Your task to perform on an android device: Add usb-b to the cart on amazon, then select checkout. Image 0: 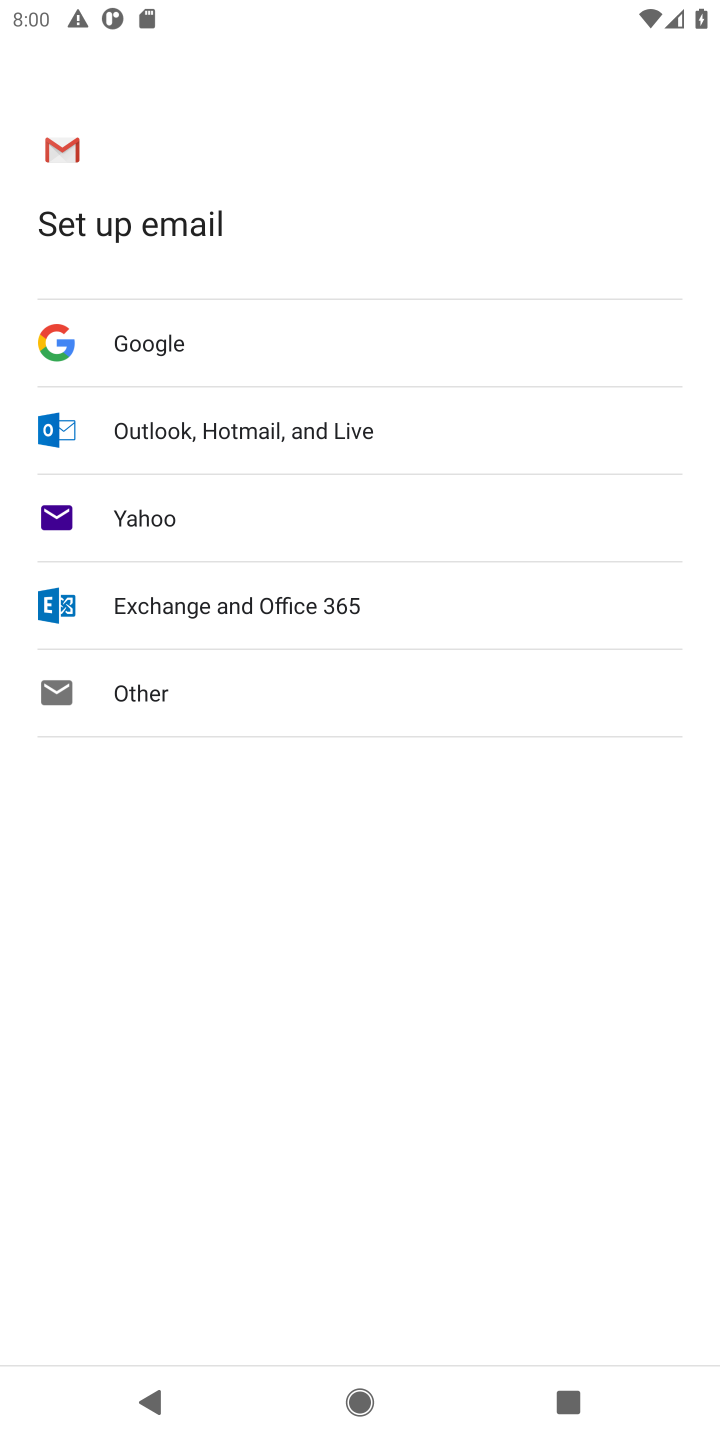
Step 0: press home button
Your task to perform on an android device: Add usb-b to the cart on amazon, then select checkout. Image 1: 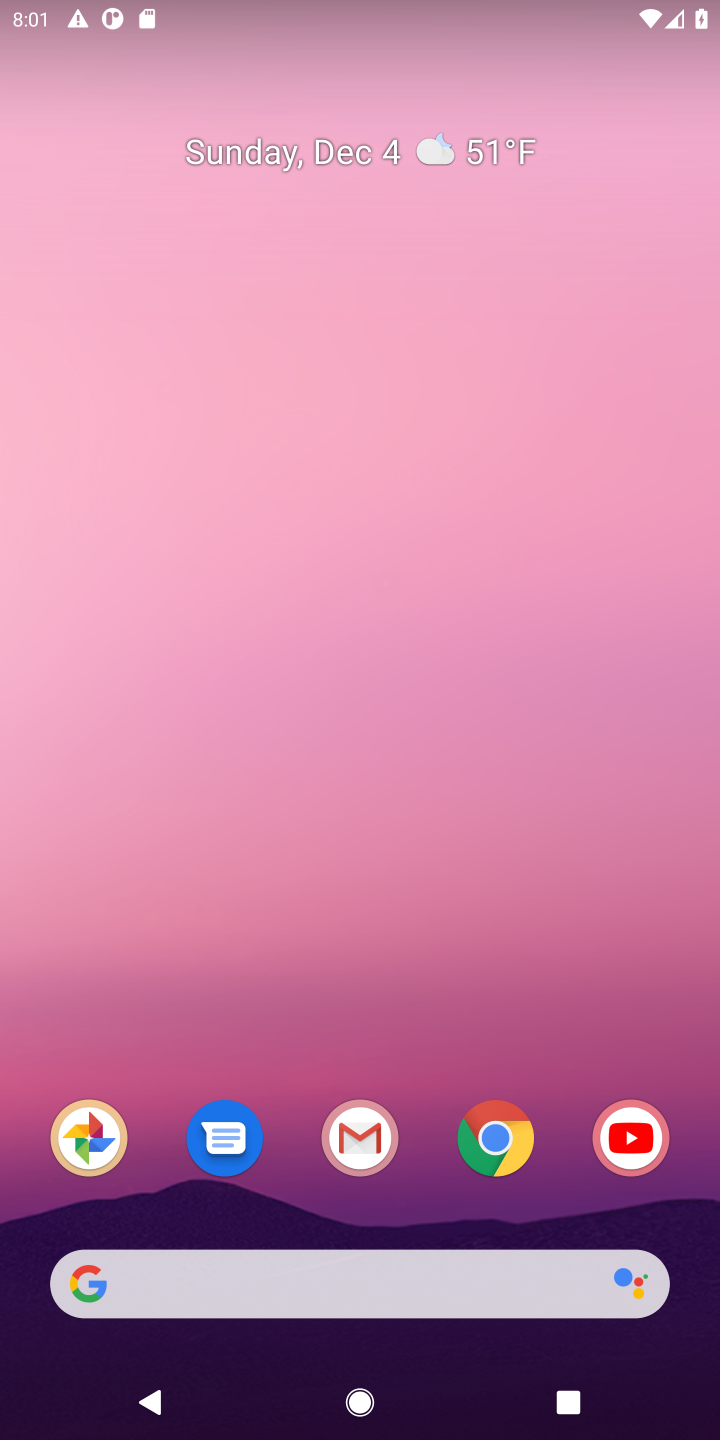
Step 1: click (511, 1125)
Your task to perform on an android device: Add usb-b to the cart on amazon, then select checkout. Image 2: 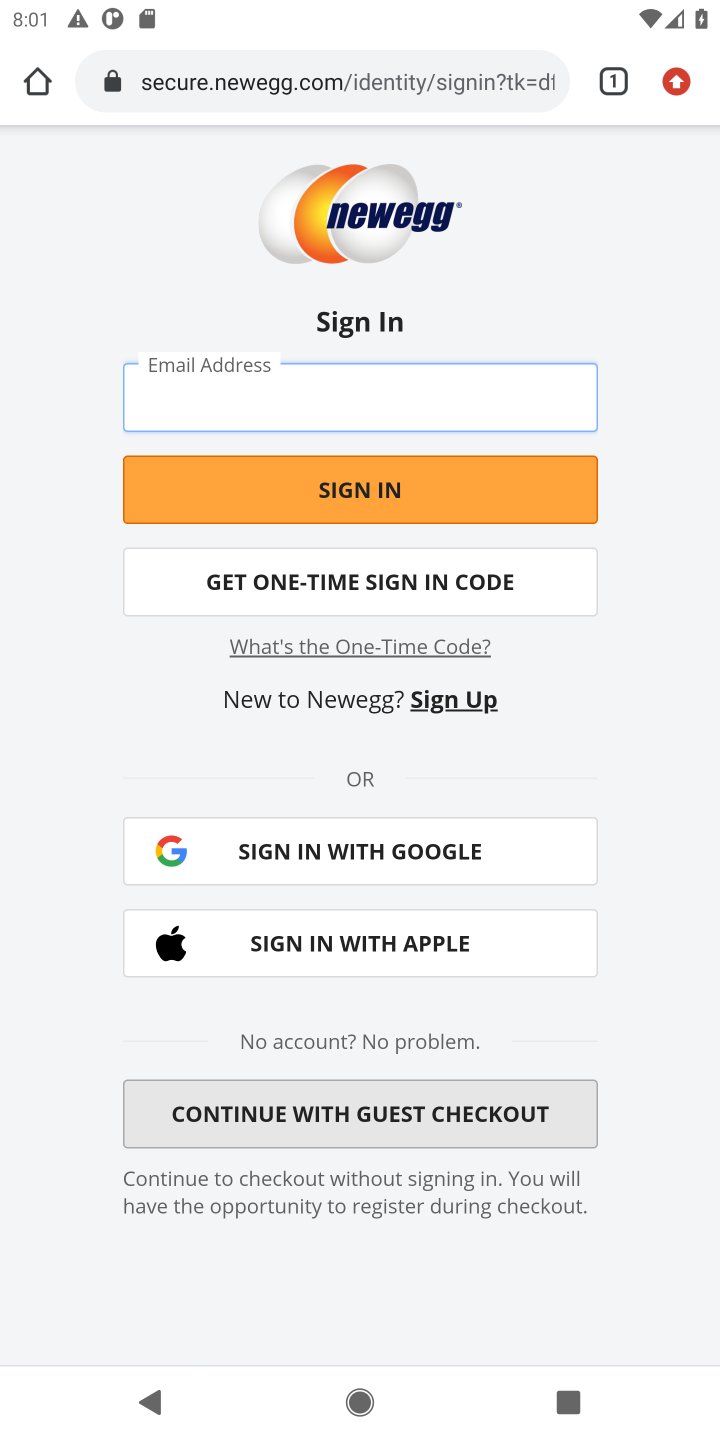
Step 2: click (402, 86)
Your task to perform on an android device: Add usb-b to the cart on amazon, then select checkout. Image 3: 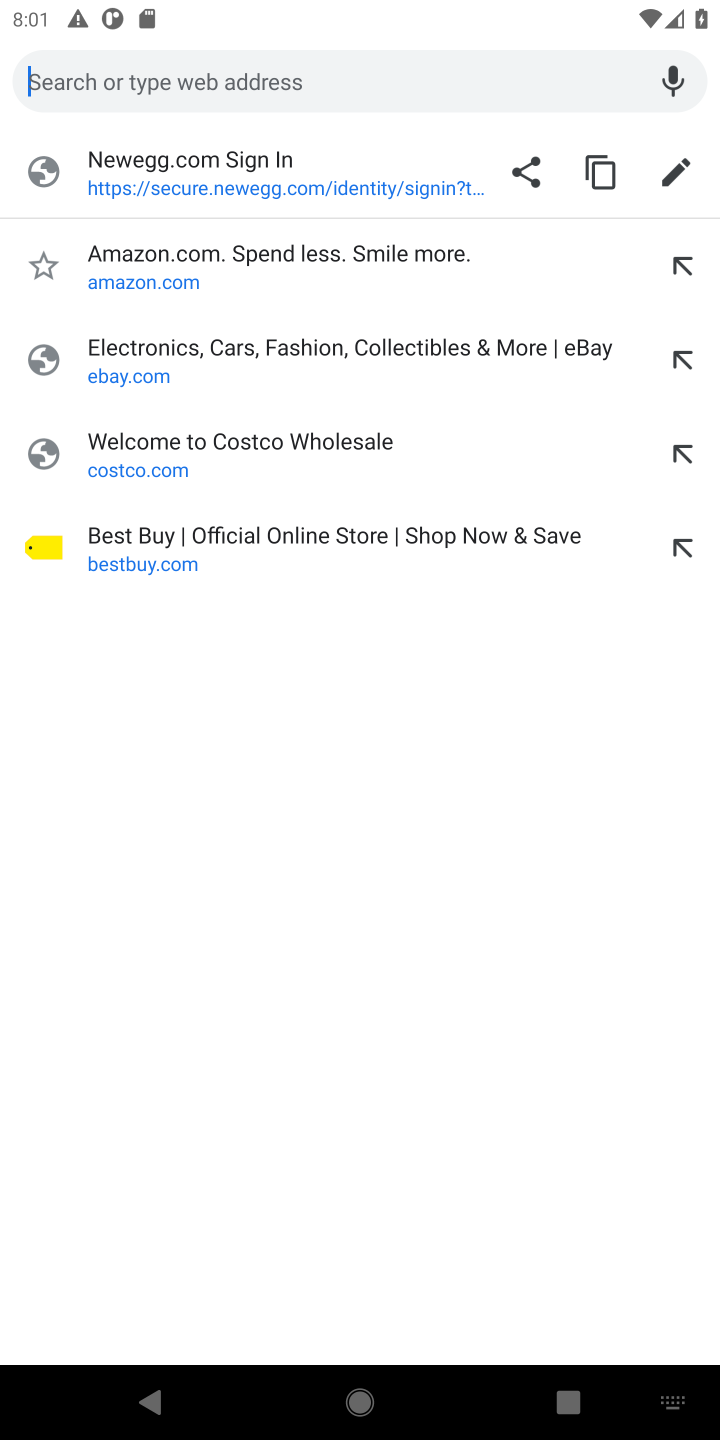
Step 3: click (261, 240)
Your task to perform on an android device: Add usb-b to the cart on amazon, then select checkout. Image 4: 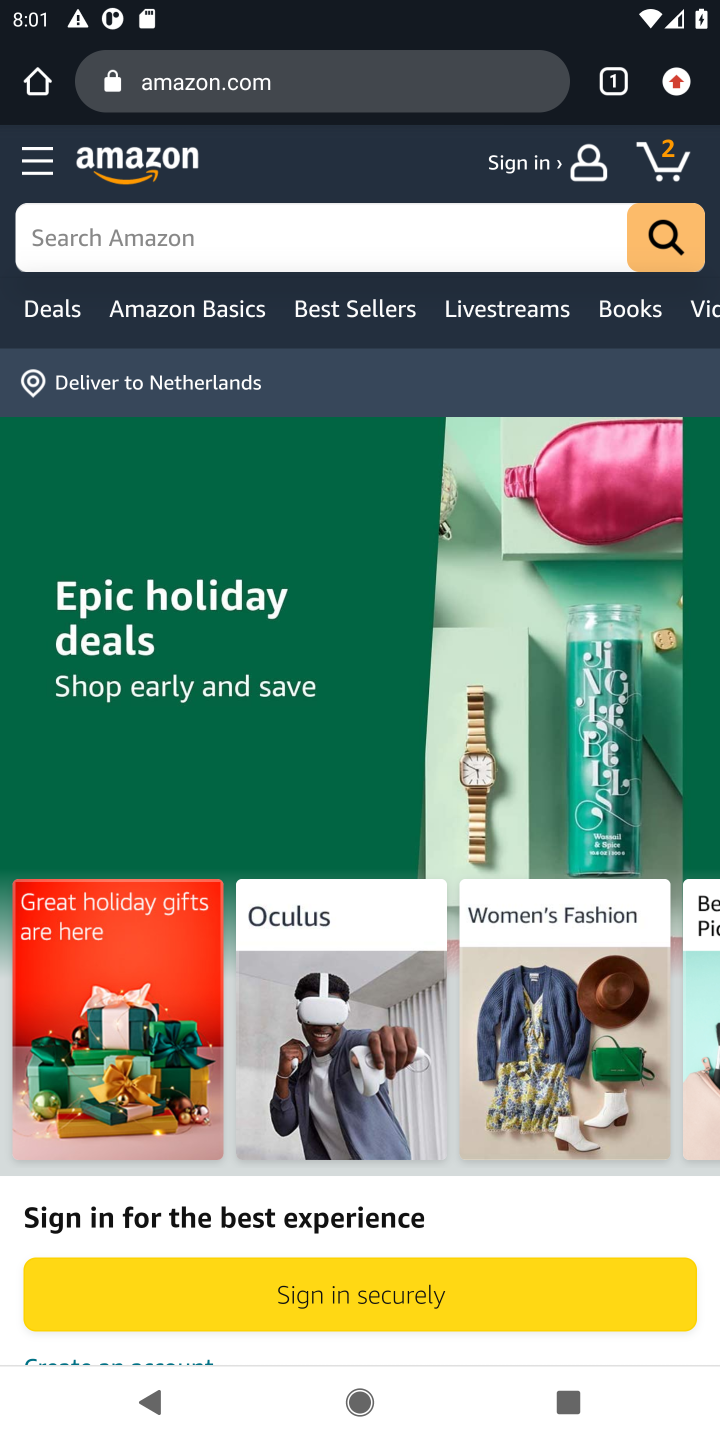
Step 4: click (558, 226)
Your task to perform on an android device: Add usb-b to the cart on amazon, then select checkout. Image 5: 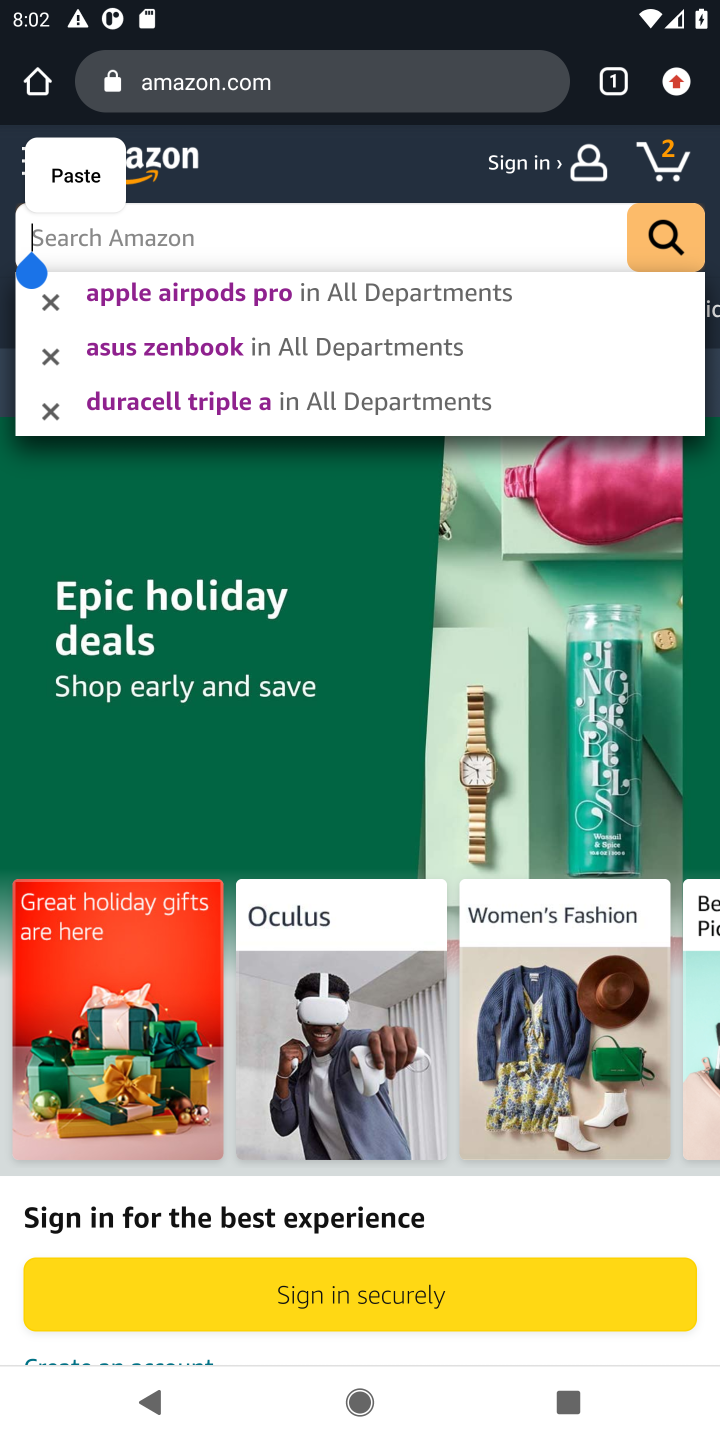
Step 5: press enter
Your task to perform on an android device: Add usb-b to the cart on amazon, then select checkout. Image 6: 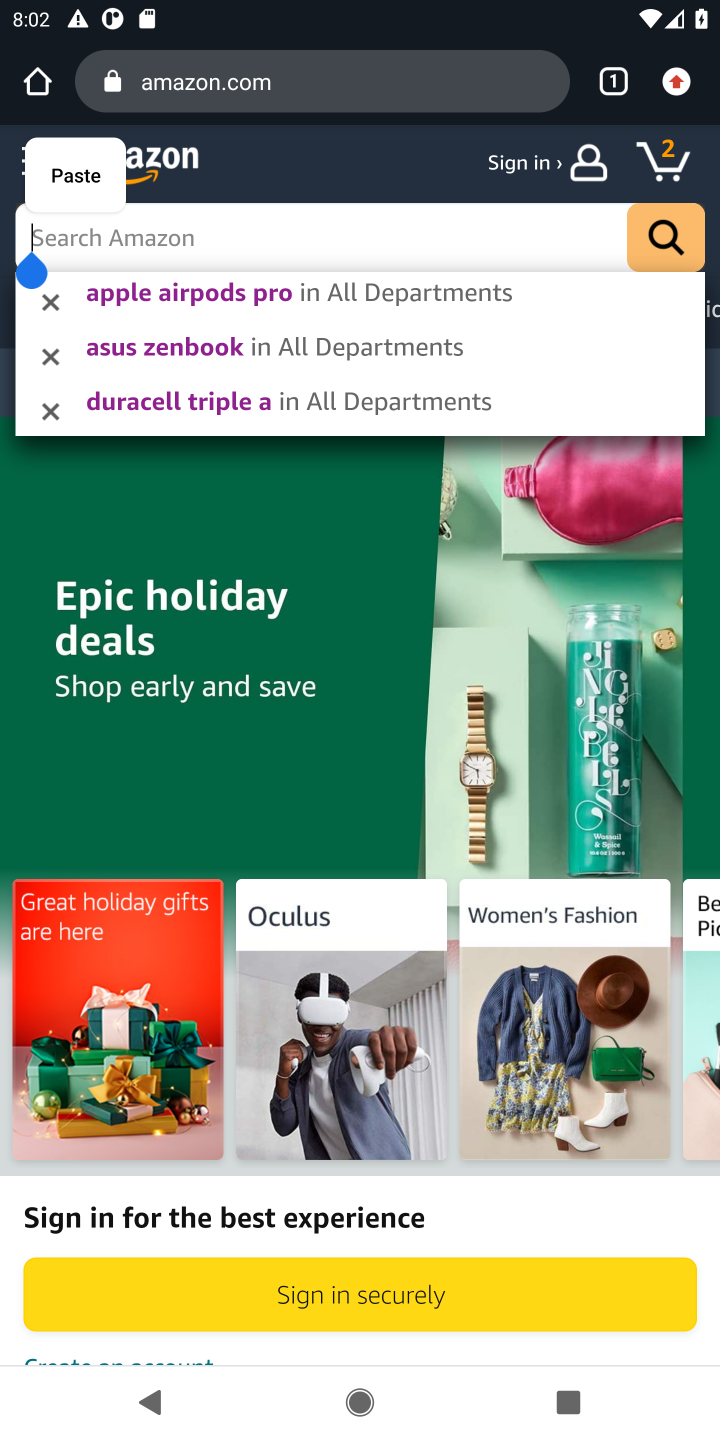
Step 6: type "usb-b"
Your task to perform on an android device: Add usb-b to the cart on amazon, then select checkout. Image 7: 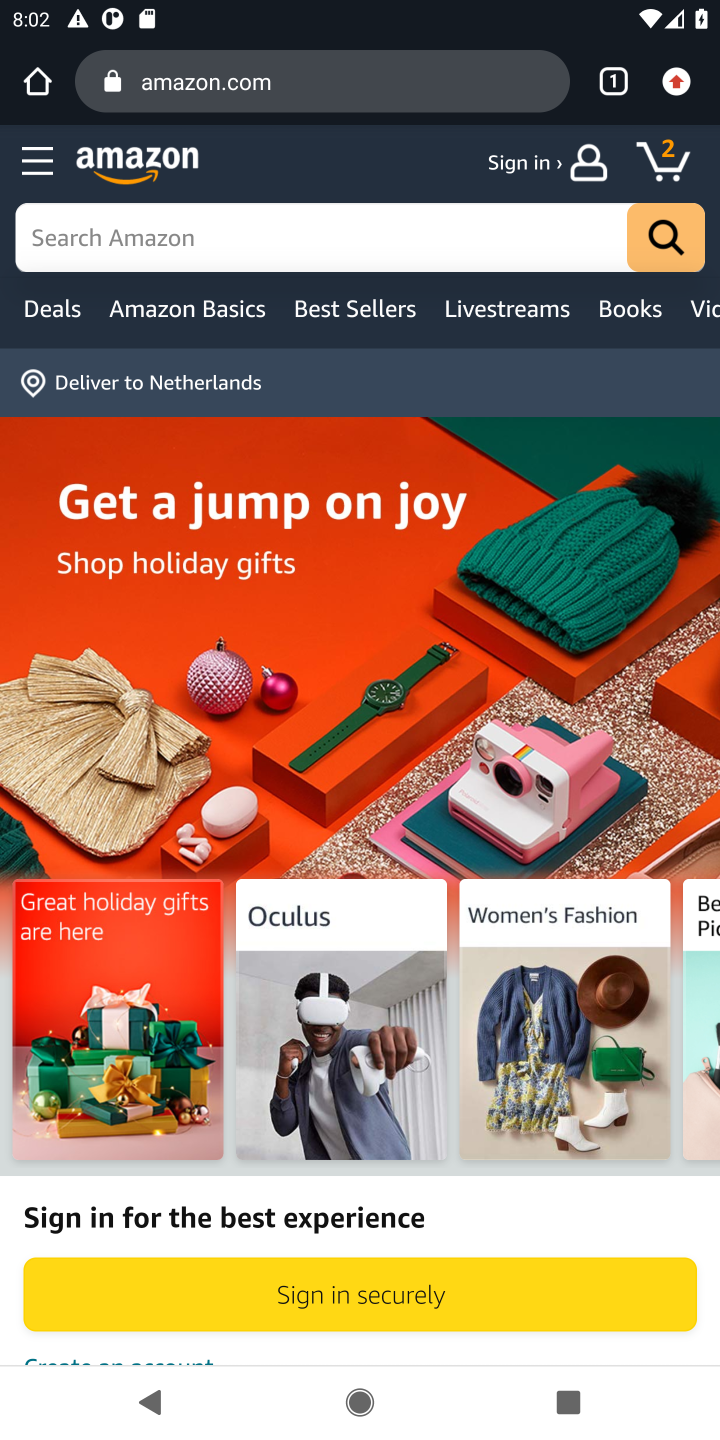
Step 7: click (463, 232)
Your task to perform on an android device: Add usb-b to the cart on amazon, then select checkout. Image 8: 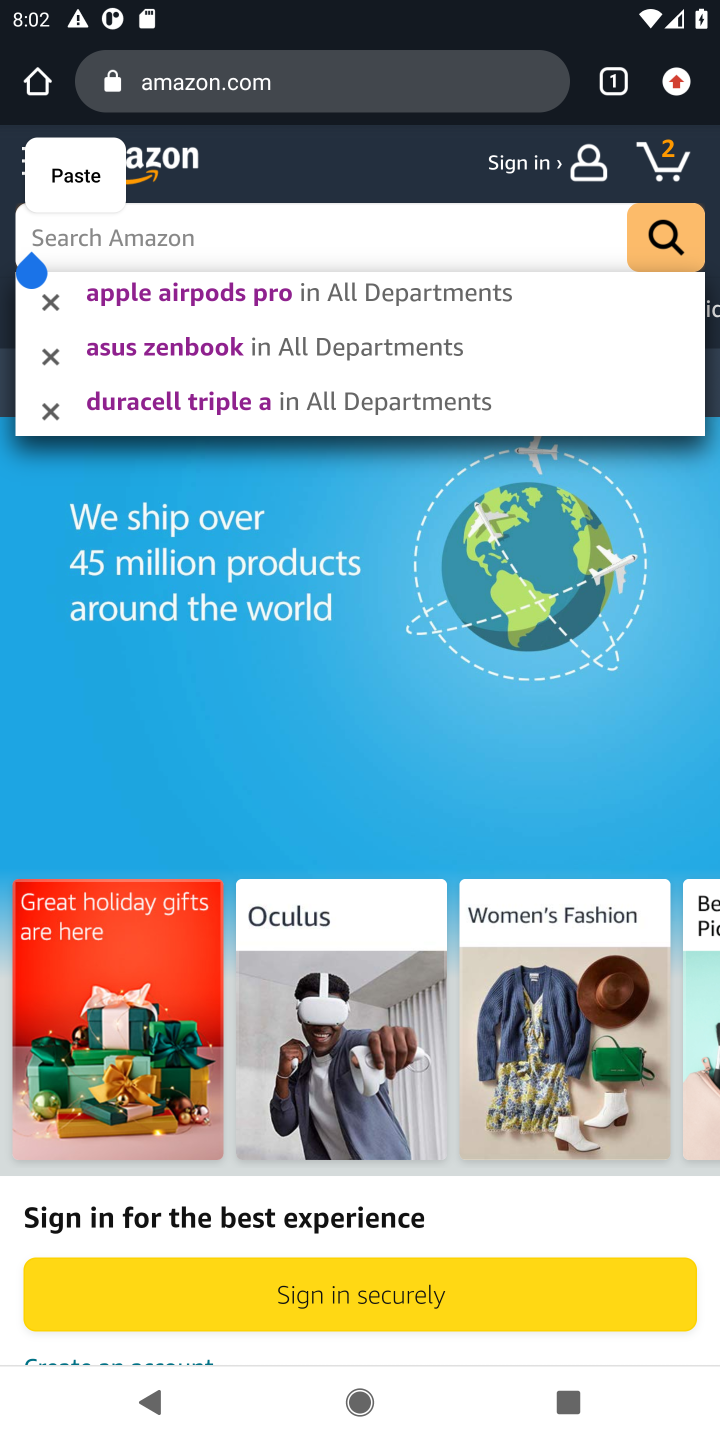
Step 8: type "usb-b"
Your task to perform on an android device: Add usb-b to the cart on amazon, then select checkout. Image 9: 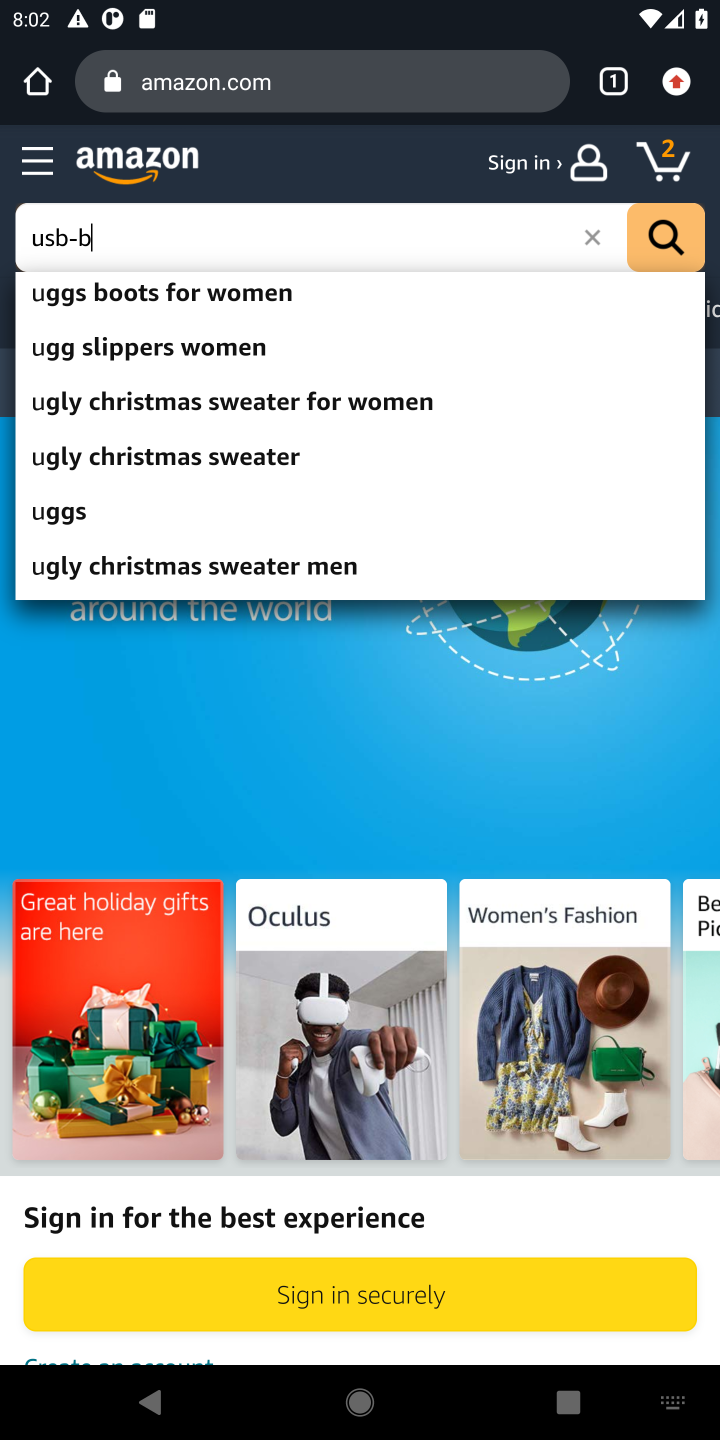
Step 9: press enter
Your task to perform on an android device: Add usb-b to the cart on amazon, then select checkout. Image 10: 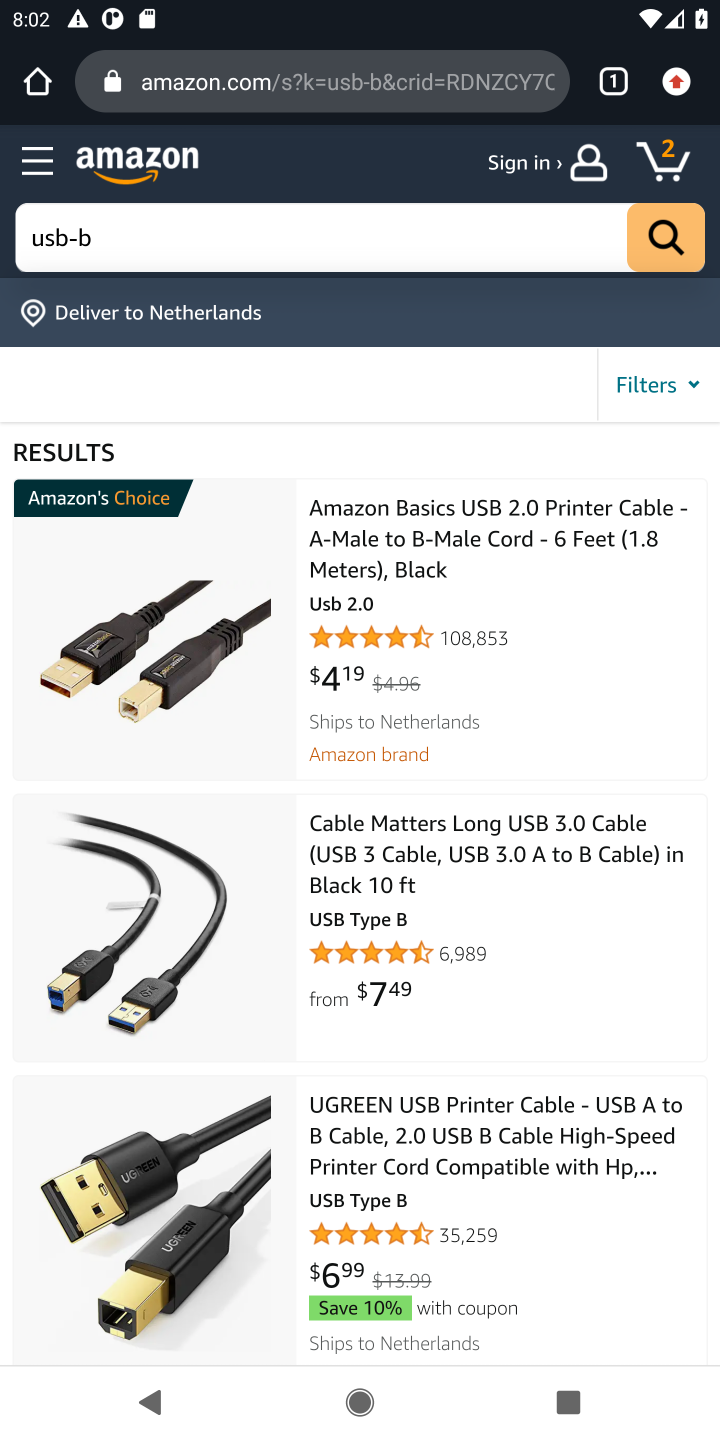
Step 10: task complete